Your task to perform on an android device: See recent photos Image 0: 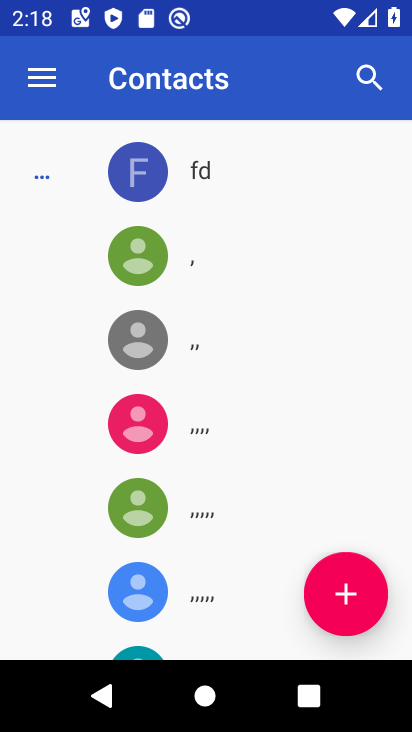
Step 0: press home button
Your task to perform on an android device: See recent photos Image 1: 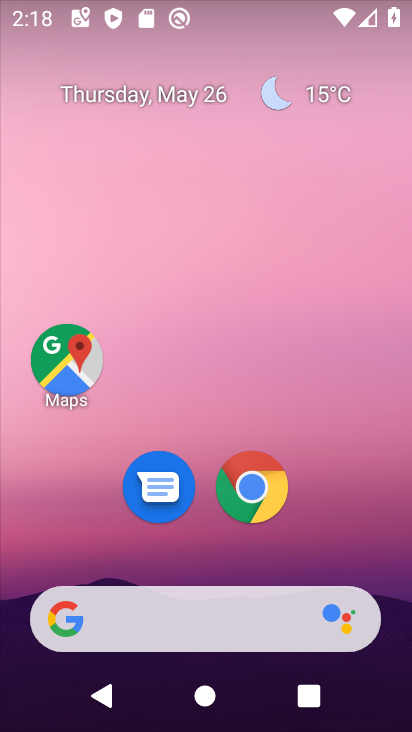
Step 1: drag from (211, 560) to (198, 156)
Your task to perform on an android device: See recent photos Image 2: 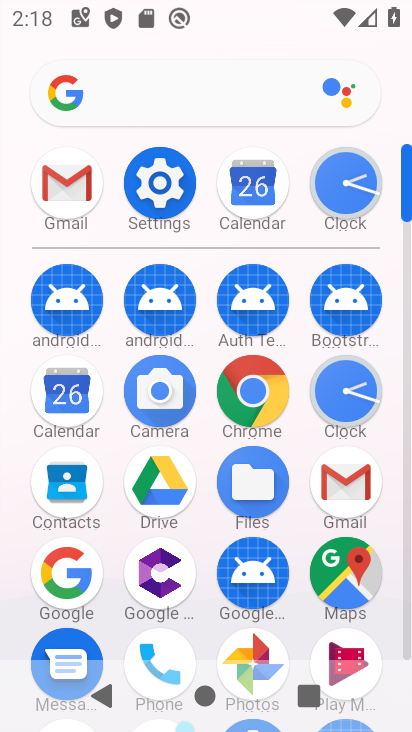
Step 2: drag from (218, 596) to (206, 331)
Your task to perform on an android device: See recent photos Image 3: 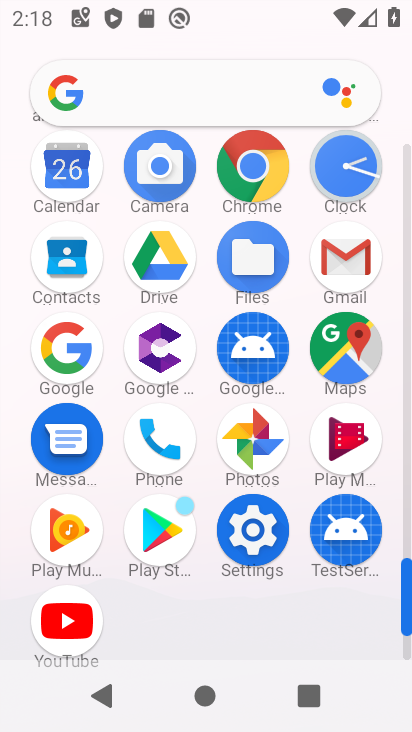
Step 3: click (243, 445)
Your task to perform on an android device: See recent photos Image 4: 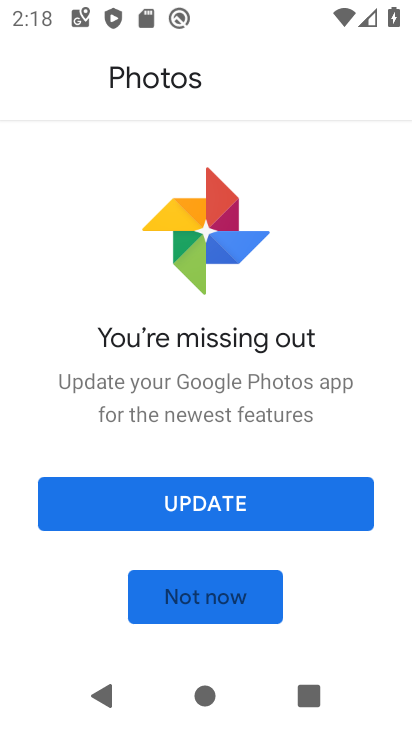
Step 4: click (208, 591)
Your task to perform on an android device: See recent photos Image 5: 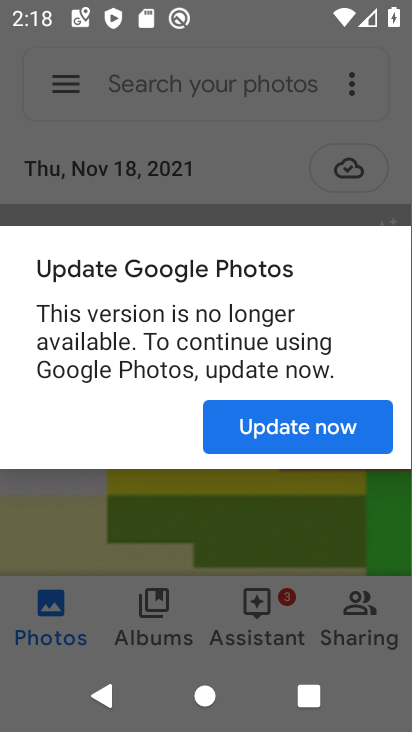
Step 5: click (323, 426)
Your task to perform on an android device: See recent photos Image 6: 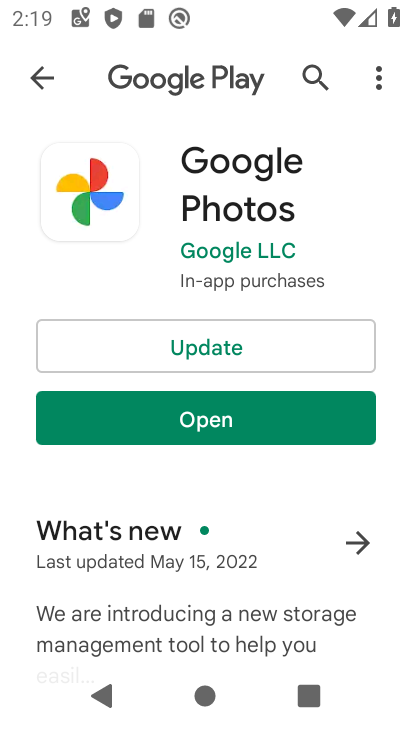
Step 6: click (207, 417)
Your task to perform on an android device: See recent photos Image 7: 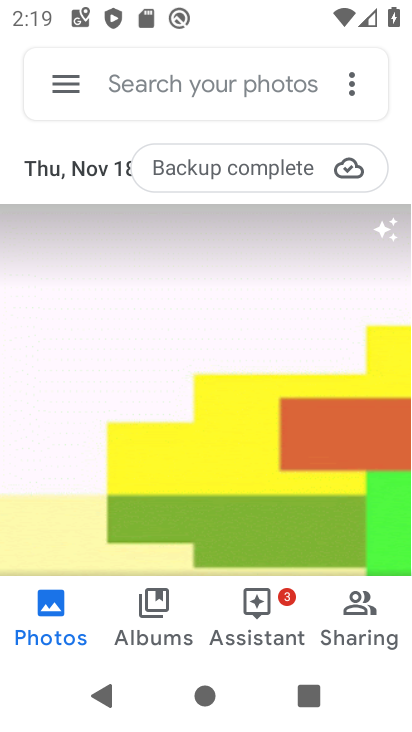
Step 7: click (56, 608)
Your task to perform on an android device: See recent photos Image 8: 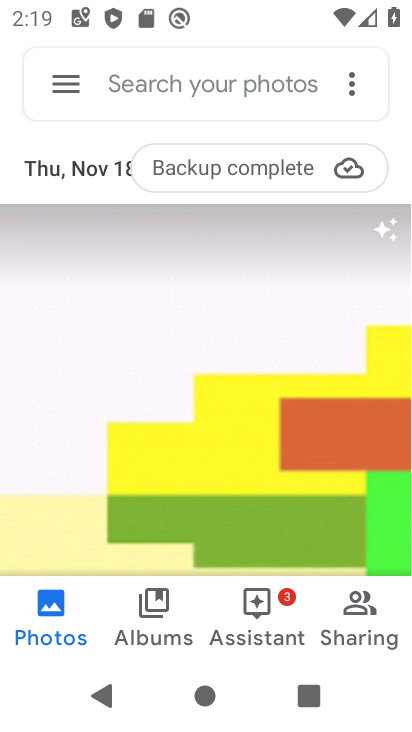
Step 8: click (57, 608)
Your task to perform on an android device: See recent photos Image 9: 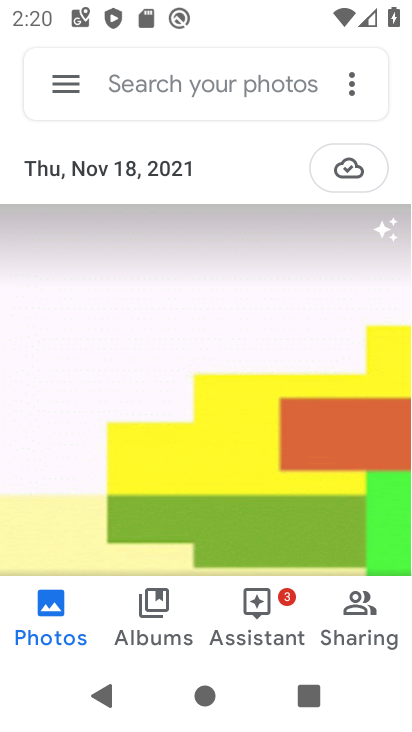
Step 9: task complete